Your task to perform on an android device: Clear the cart on bestbuy. Search for "lenovo thinkpad" on bestbuy, select the first entry, and add it to the cart. Image 0: 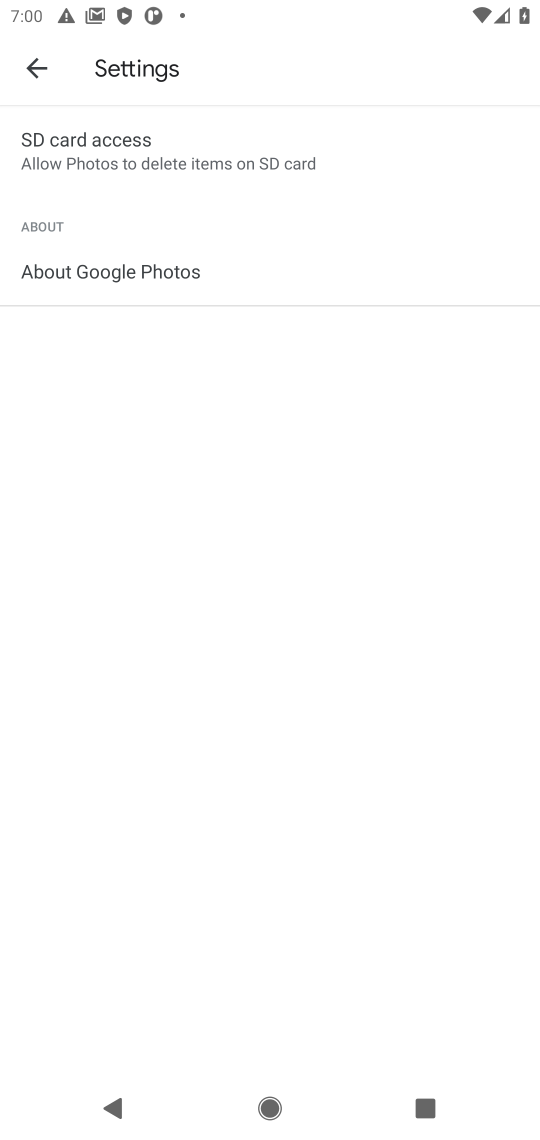
Step 0: press home button
Your task to perform on an android device: Clear the cart on bestbuy. Search for "lenovo thinkpad" on bestbuy, select the first entry, and add it to the cart. Image 1: 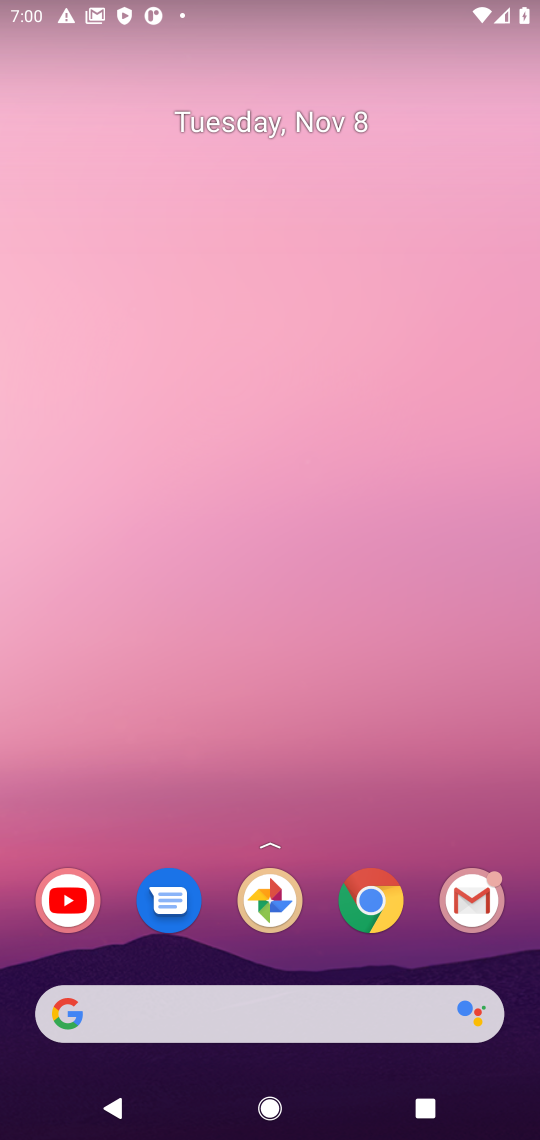
Step 1: click (397, 891)
Your task to perform on an android device: Clear the cart on bestbuy. Search for "lenovo thinkpad" on bestbuy, select the first entry, and add it to the cart. Image 2: 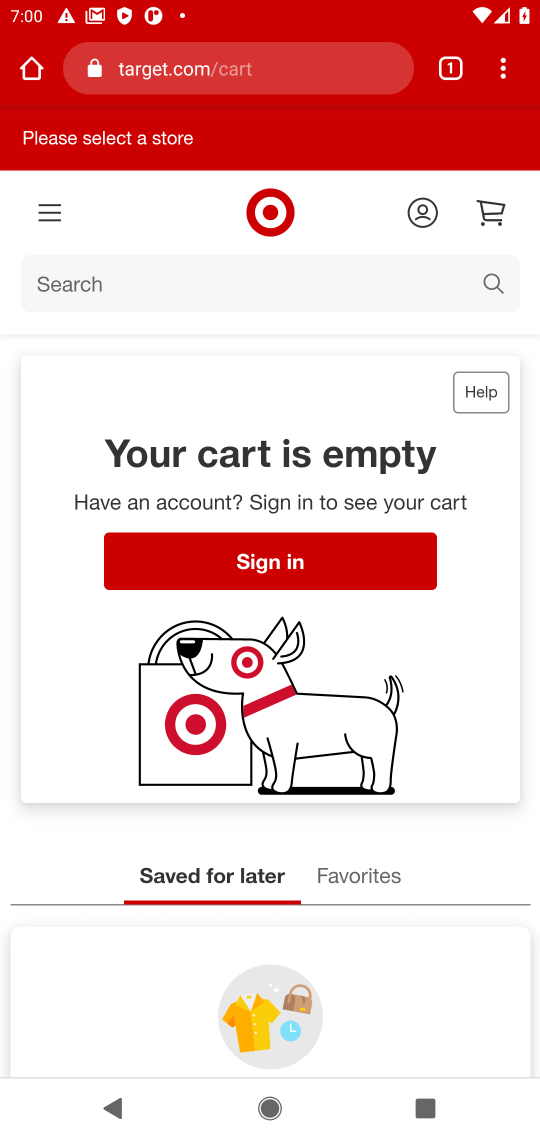
Step 2: click (212, 65)
Your task to perform on an android device: Clear the cart on bestbuy. Search for "lenovo thinkpad" on bestbuy, select the first entry, and add it to the cart. Image 3: 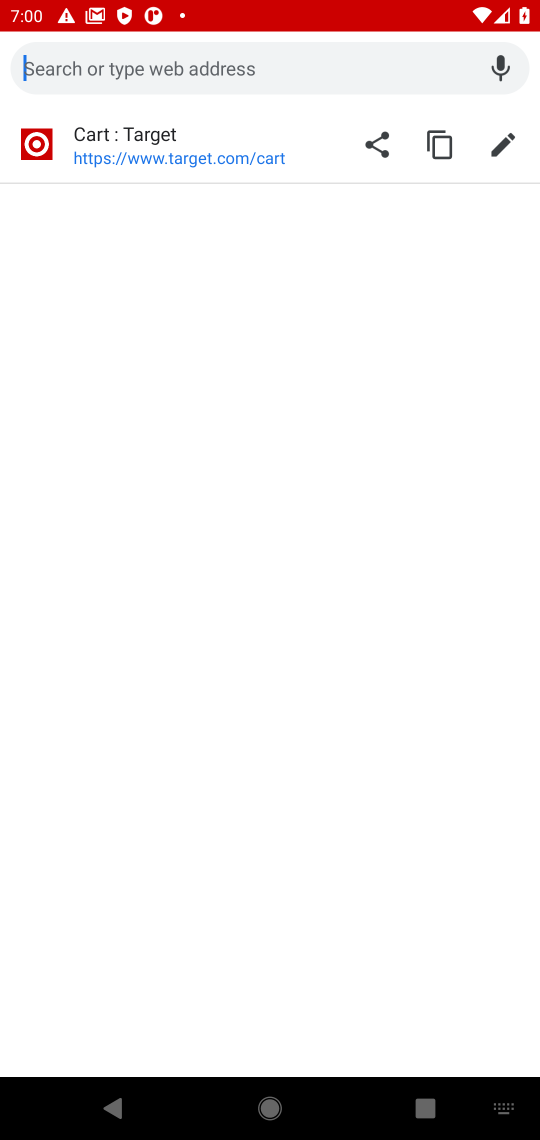
Step 3: type "bestbuy"
Your task to perform on an android device: Clear the cart on bestbuy. Search for "lenovo thinkpad" on bestbuy, select the first entry, and add it to the cart. Image 4: 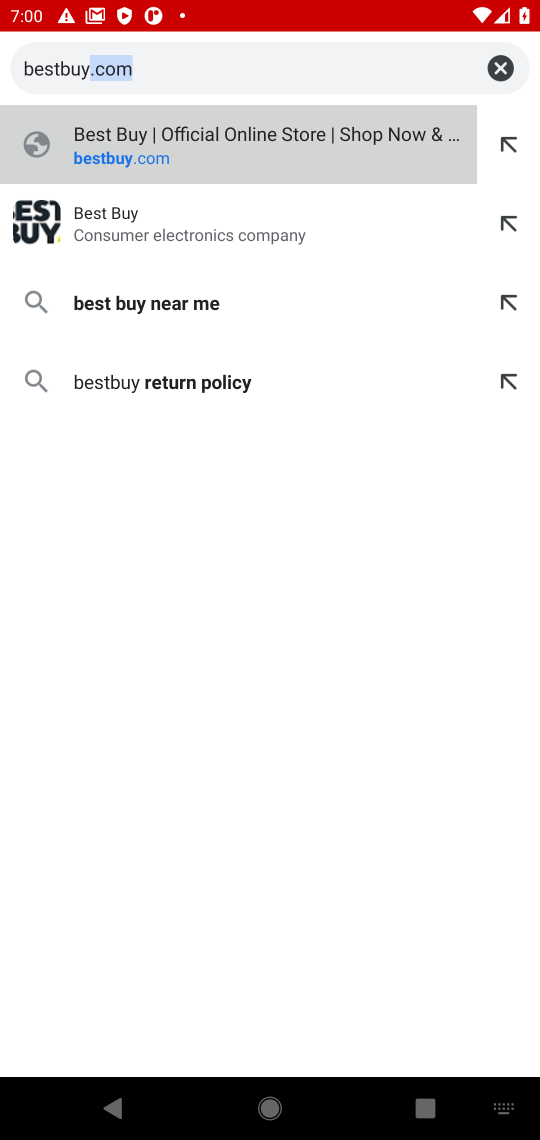
Step 4: type ""
Your task to perform on an android device: Clear the cart on bestbuy. Search for "lenovo thinkpad" on bestbuy, select the first entry, and add it to the cart. Image 5: 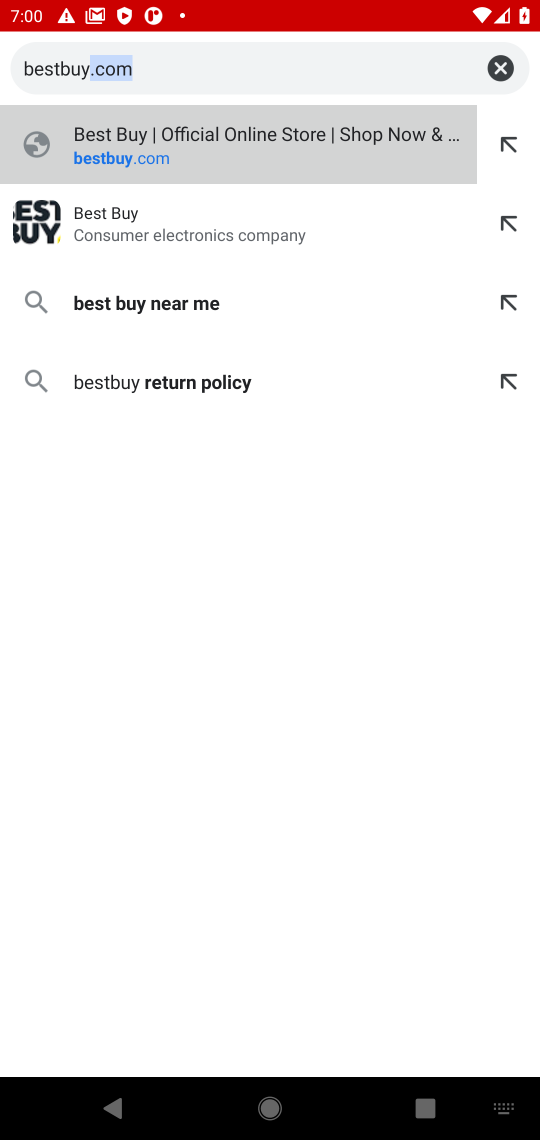
Step 5: click (160, 220)
Your task to perform on an android device: Clear the cart on bestbuy. Search for "lenovo thinkpad" on bestbuy, select the first entry, and add it to the cart. Image 6: 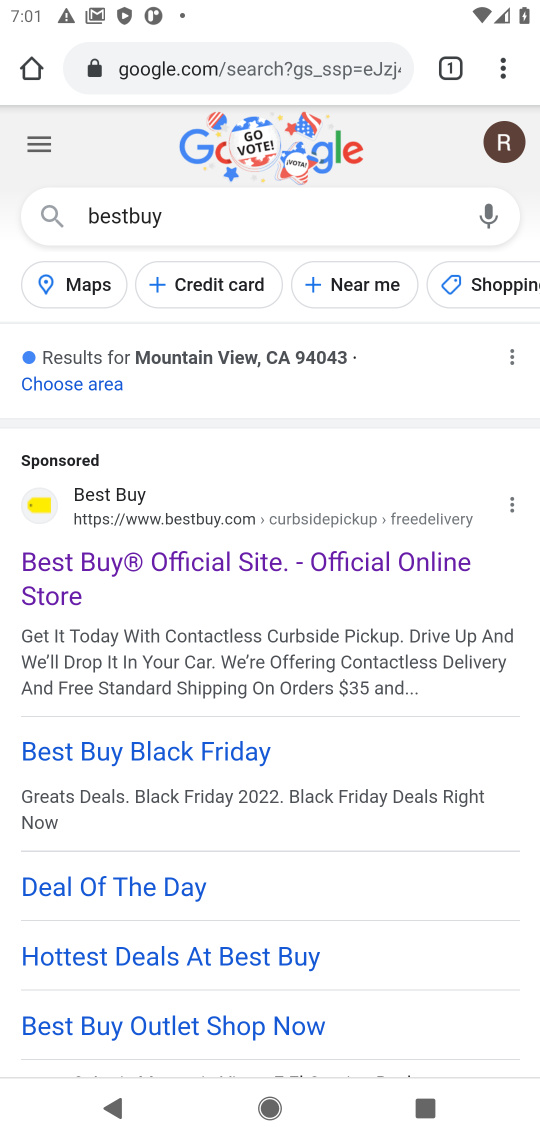
Step 6: click (97, 555)
Your task to perform on an android device: Clear the cart on bestbuy. Search for "lenovo thinkpad" on bestbuy, select the first entry, and add it to the cart. Image 7: 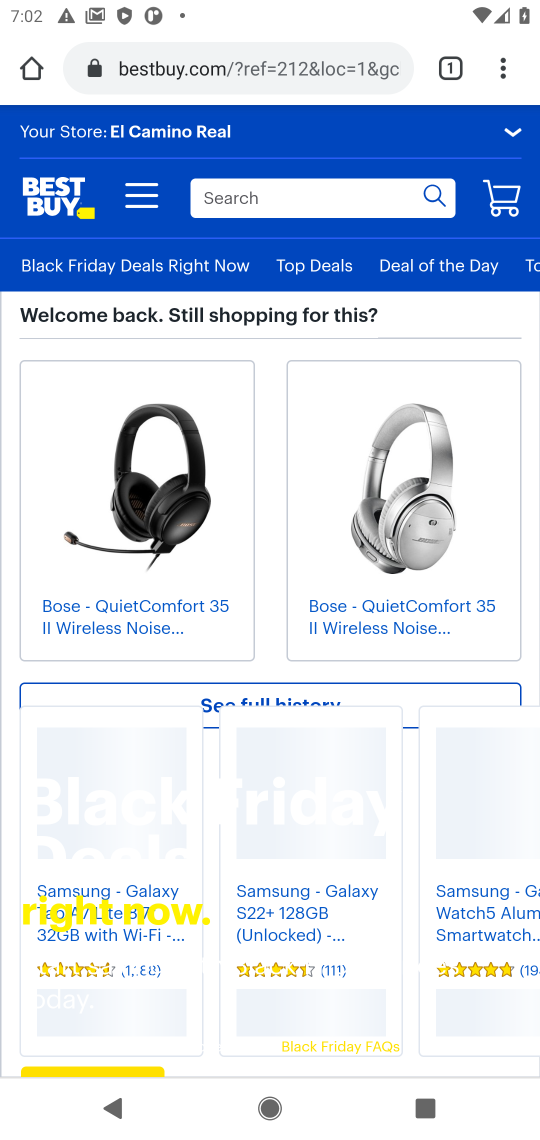
Step 7: click (256, 198)
Your task to perform on an android device: Clear the cart on bestbuy. Search for "lenovo thinkpad" on bestbuy, select the first entry, and add it to the cart. Image 8: 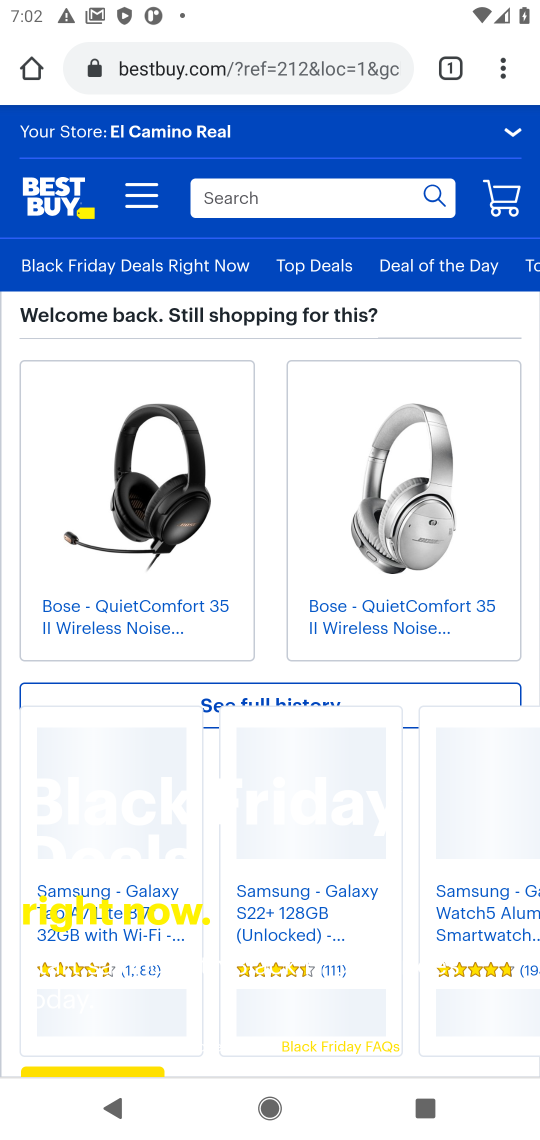
Step 8: click (298, 193)
Your task to perform on an android device: Clear the cart on bestbuy. Search for "lenovo thinkpad" on bestbuy, select the first entry, and add it to the cart. Image 9: 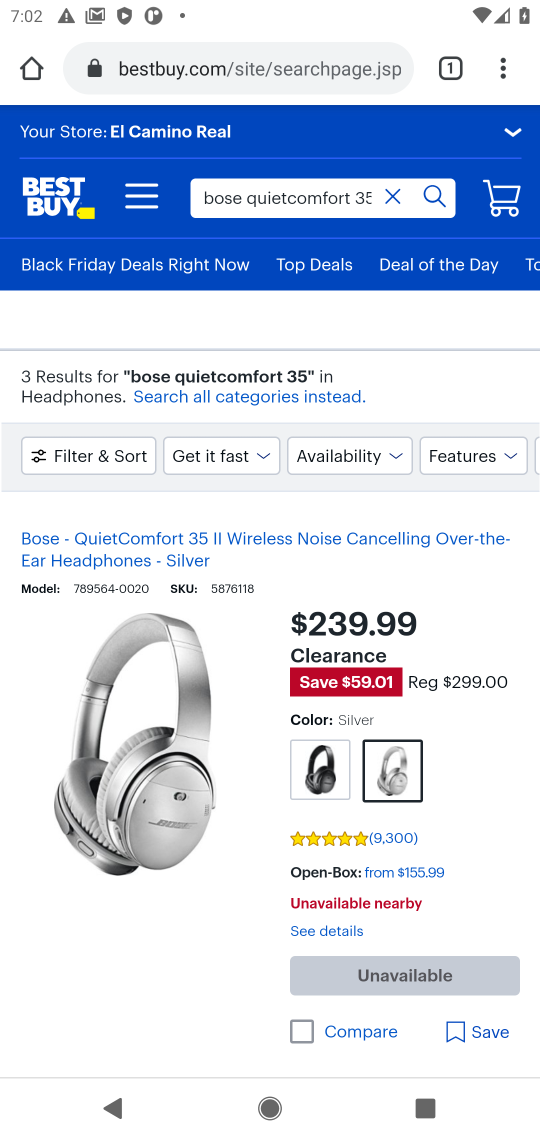
Step 9: type "lenovo thinkpad"
Your task to perform on an android device: Clear the cart on bestbuy. Search for "lenovo thinkpad" on bestbuy, select the first entry, and add it to the cart. Image 10: 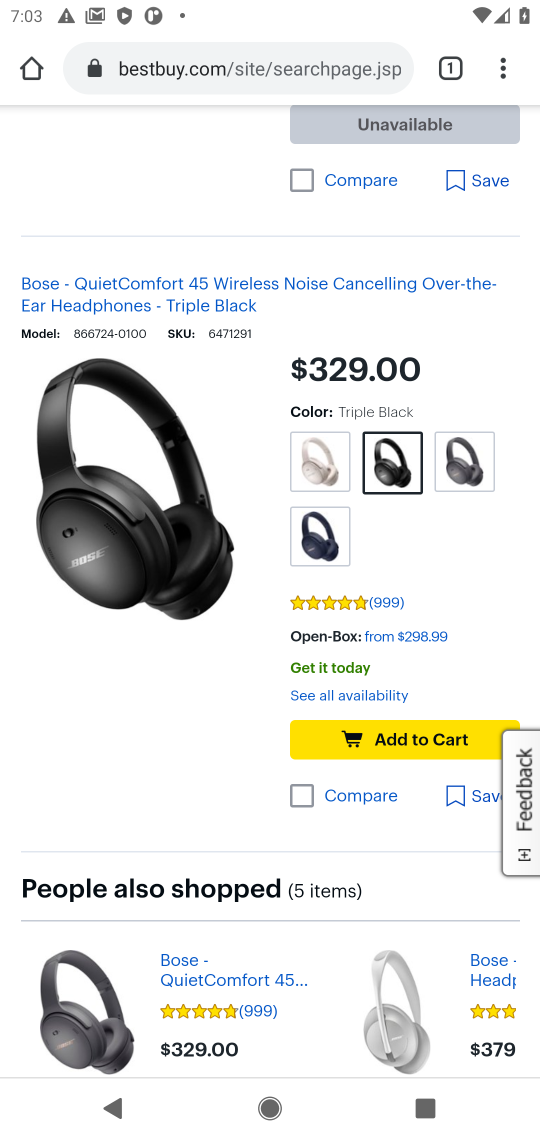
Step 10: drag from (201, 235) to (231, 1061)
Your task to perform on an android device: Clear the cart on bestbuy. Search for "lenovo thinkpad" on bestbuy, select the first entry, and add it to the cart. Image 11: 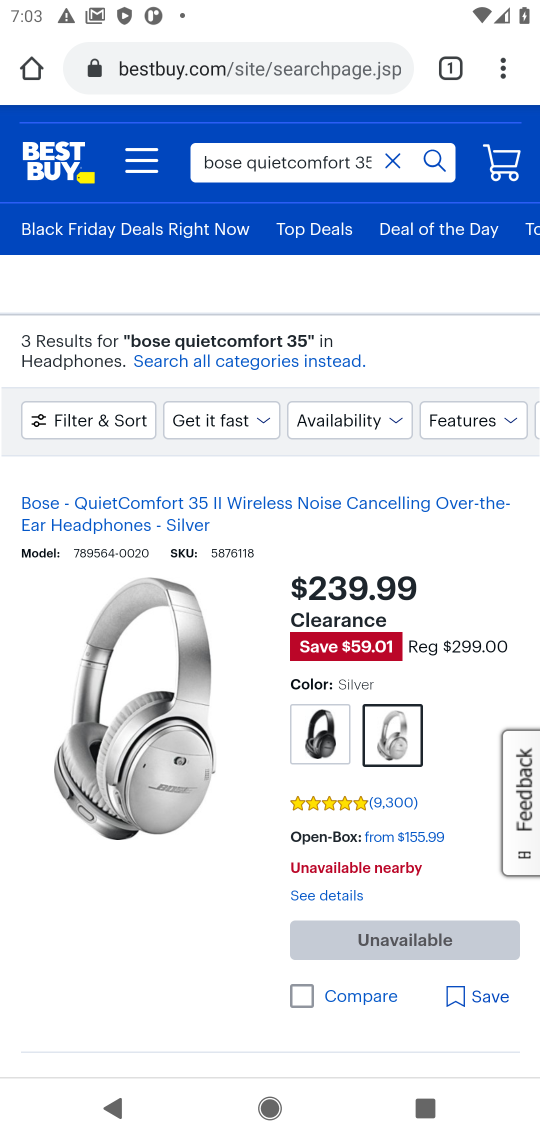
Step 11: click (389, 158)
Your task to perform on an android device: Clear the cart on bestbuy. Search for "lenovo thinkpad" on bestbuy, select the first entry, and add it to the cart. Image 12: 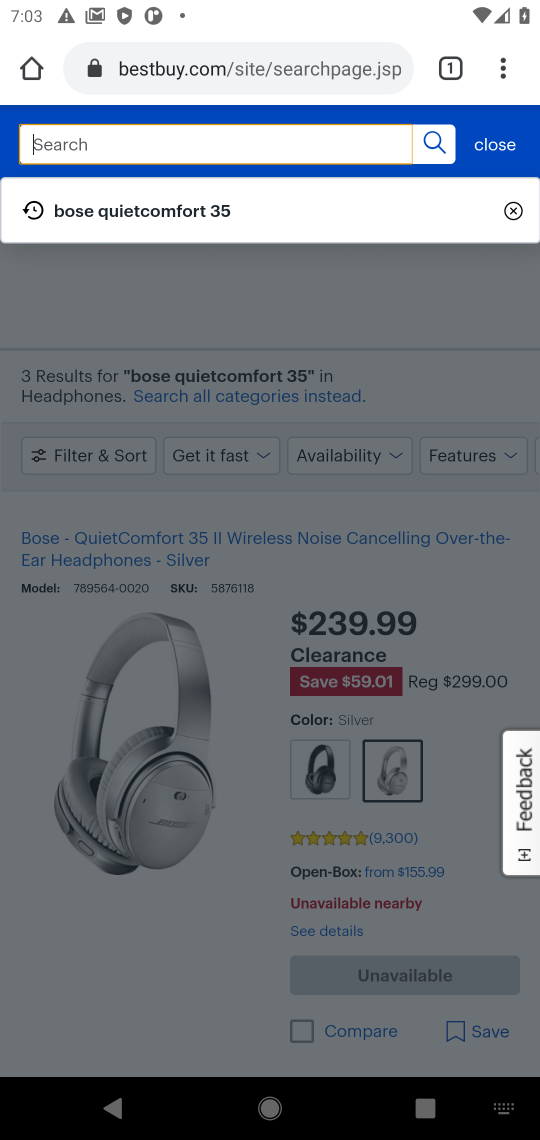
Step 12: type "lenovo thinkpadd"
Your task to perform on an android device: Clear the cart on bestbuy. Search for "lenovo thinkpad" on bestbuy, select the first entry, and add it to the cart. Image 13: 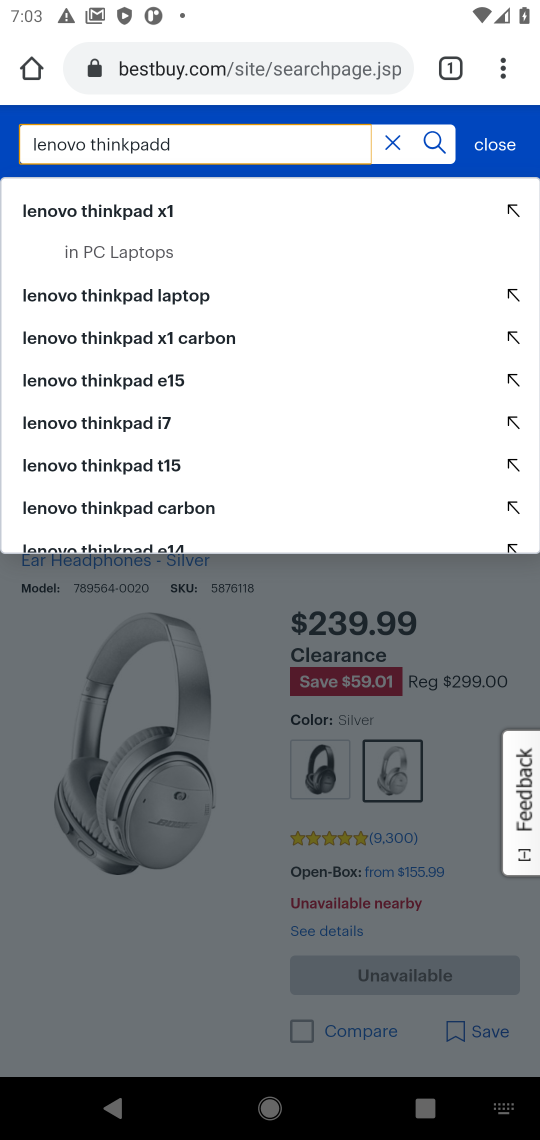
Step 13: click (99, 296)
Your task to perform on an android device: Clear the cart on bestbuy. Search for "lenovo thinkpad" on bestbuy, select the first entry, and add it to the cart. Image 14: 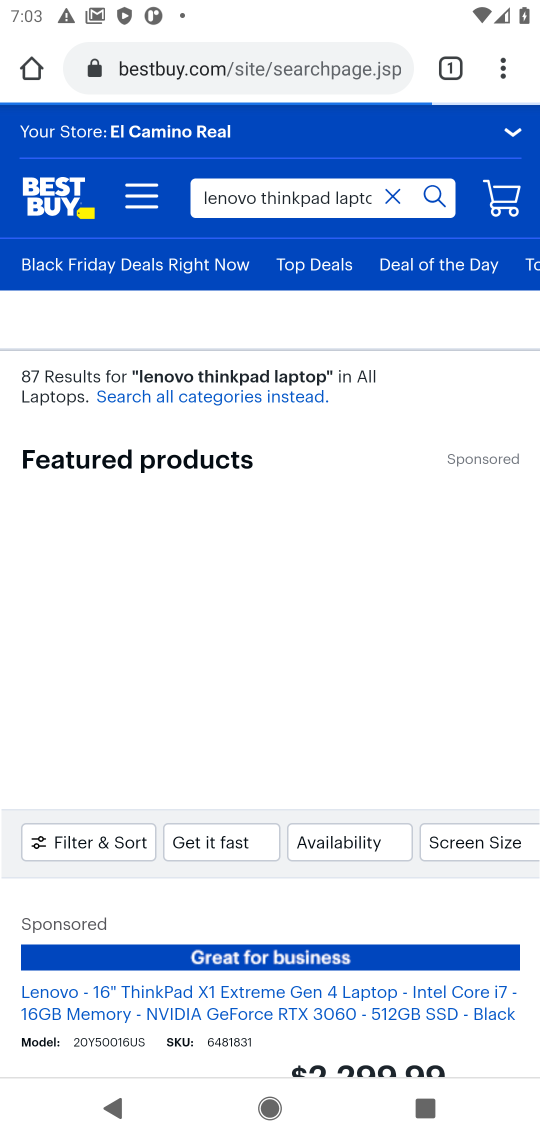
Step 14: drag from (227, 982) to (340, 303)
Your task to perform on an android device: Clear the cart on bestbuy. Search for "lenovo thinkpad" on bestbuy, select the first entry, and add it to the cart. Image 15: 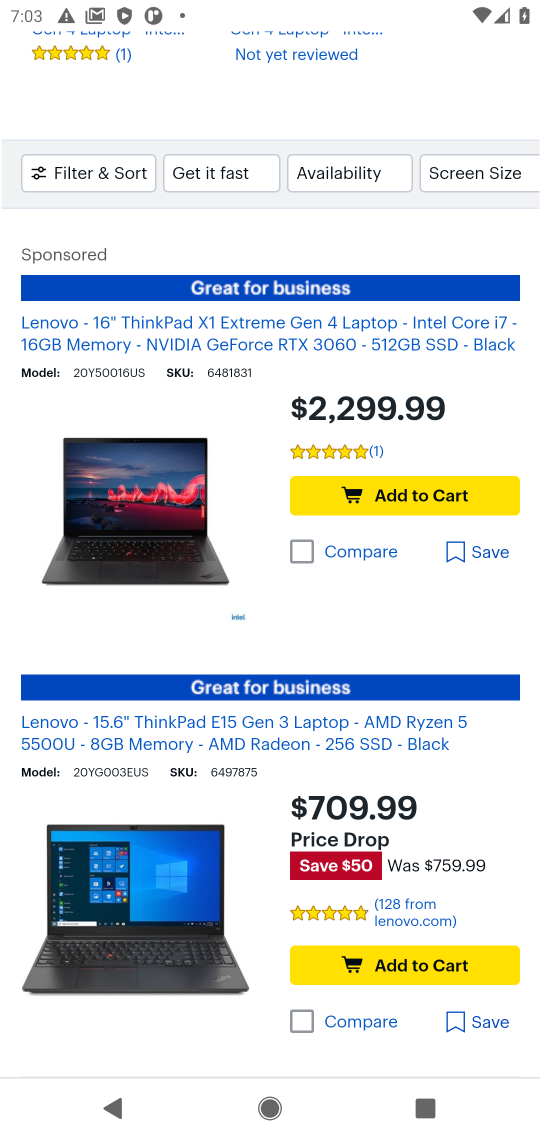
Step 15: click (181, 328)
Your task to perform on an android device: Clear the cart on bestbuy. Search for "lenovo thinkpad" on bestbuy, select the first entry, and add it to the cart. Image 16: 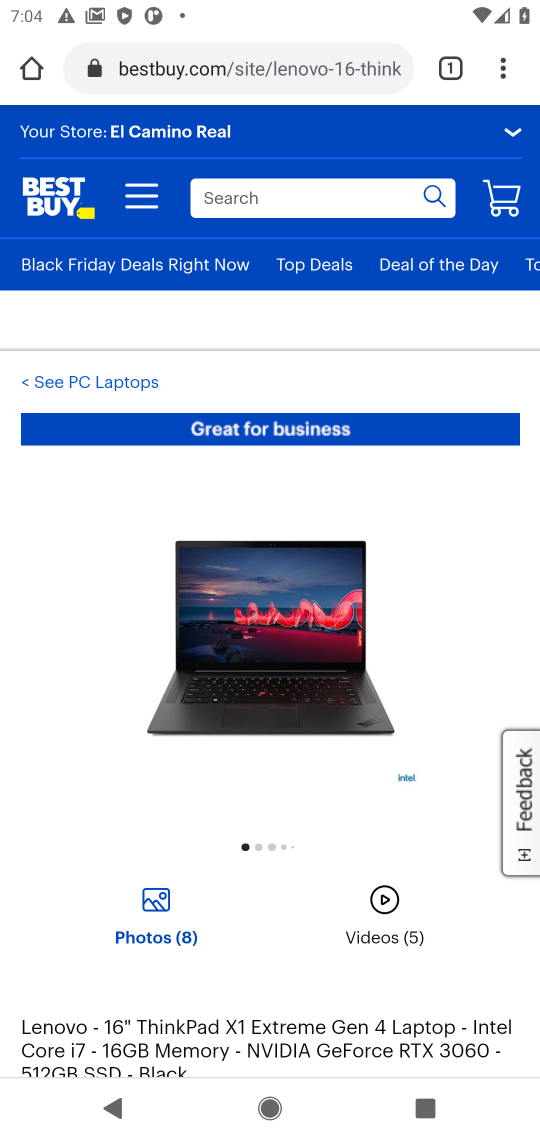
Step 16: drag from (194, 820) to (171, 327)
Your task to perform on an android device: Clear the cart on bestbuy. Search for "lenovo thinkpad" on bestbuy, select the first entry, and add it to the cart. Image 17: 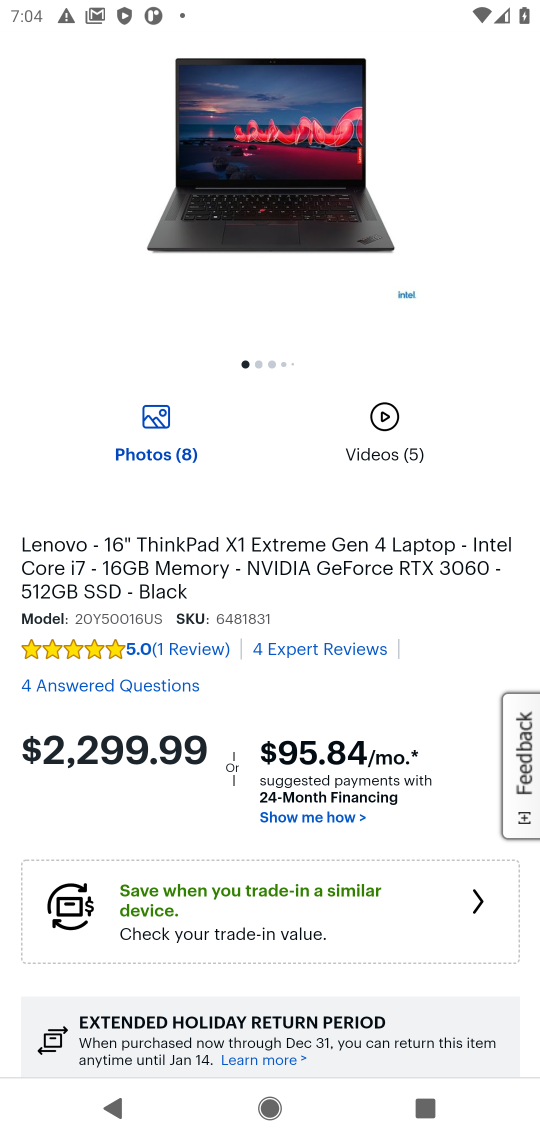
Step 17: drag from (169, 918) to (214, 354)
Your task to perform on an android device: Clear the cart on bestbuy. Search for "lenovo thinkpad" on bestbuy, select the first entry, and add it to the cart. Image 18: 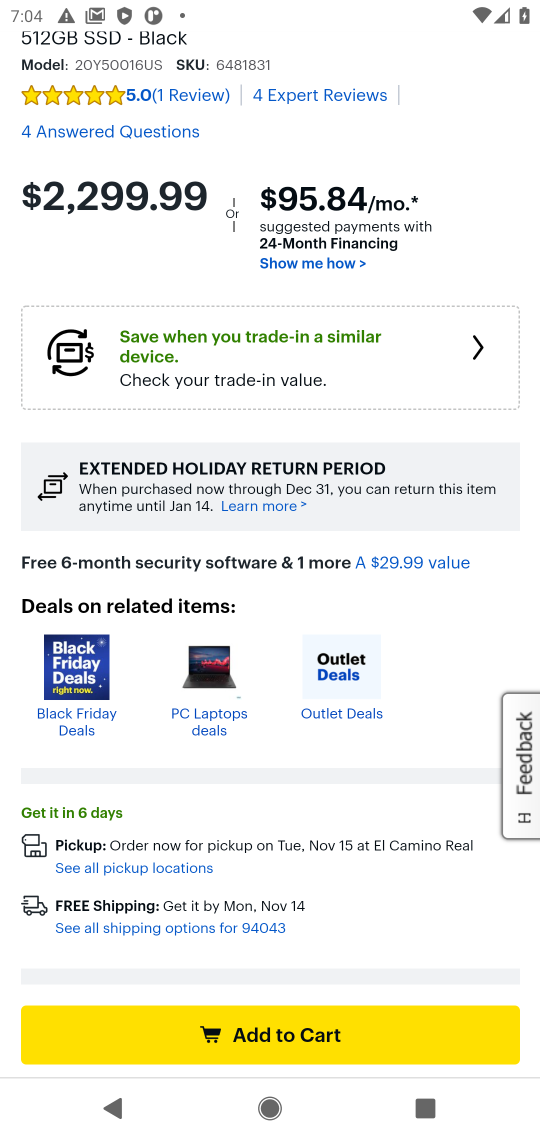
Step 18: click (312, 1045)
Your task to perform on an android device: Clear the cart on bestbuy. Search for "lenovo thinkpad" on bestbuy, select the first entry, and add it to the cart. Image 19: 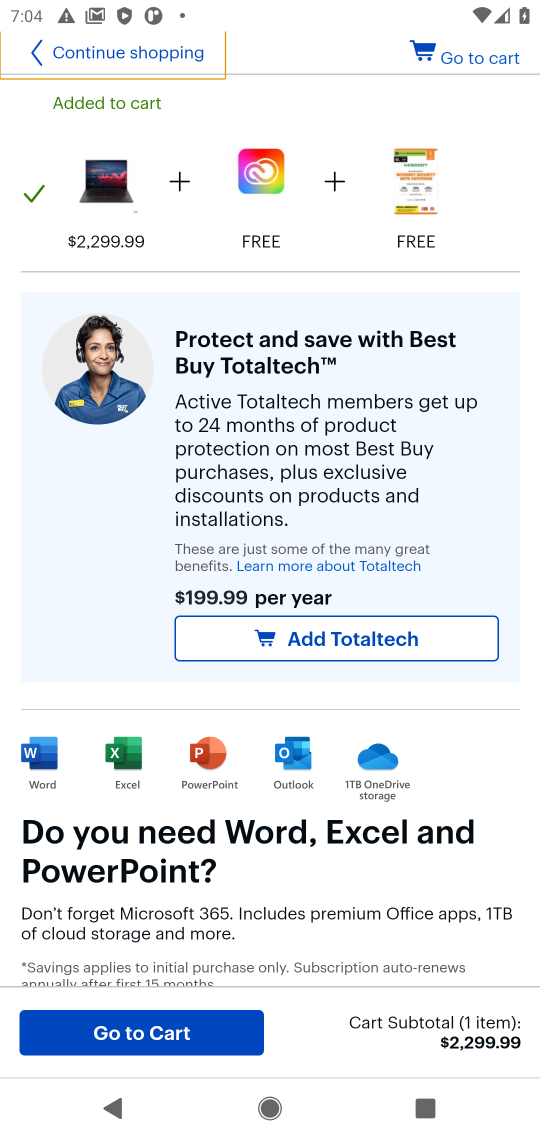
Step 19: click (157, 1037)
Your task to perform on an android device: Clear the cart on bestbuy. Search for "lenovo thinkpad" on bestbuy, select the first entry, and add it to the cart. Image 20: 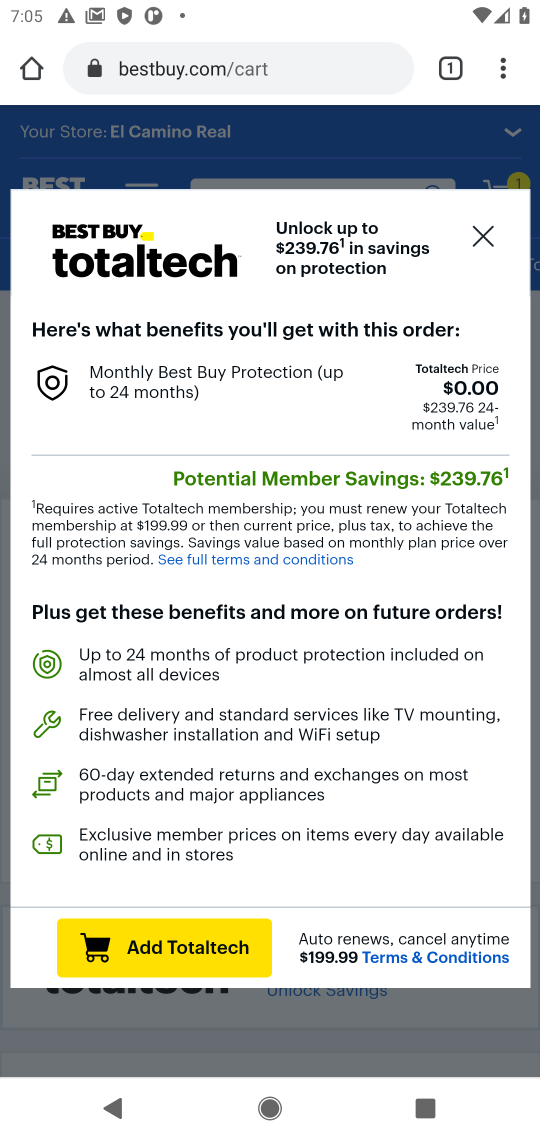
Step 20: click (483, 237)
Your task to perform on an android device: Clear the cart on bestbuy. Search for "lenovo thinkpad" on bestbuy, select the first entry, and add it to the cart. Image 21: 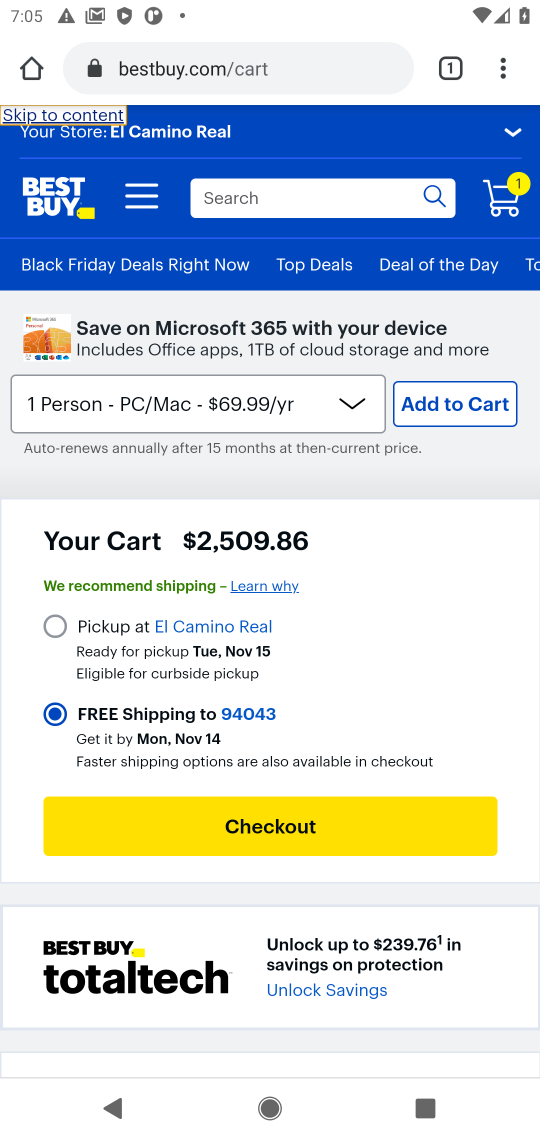
Step 21: click (510, 197)
Your task to perform on an android device: Clear the cart on bestbuy. Search for "lenovo thinkpad" on bestbuy, select the first entry, and add it to the cart. Image 22: 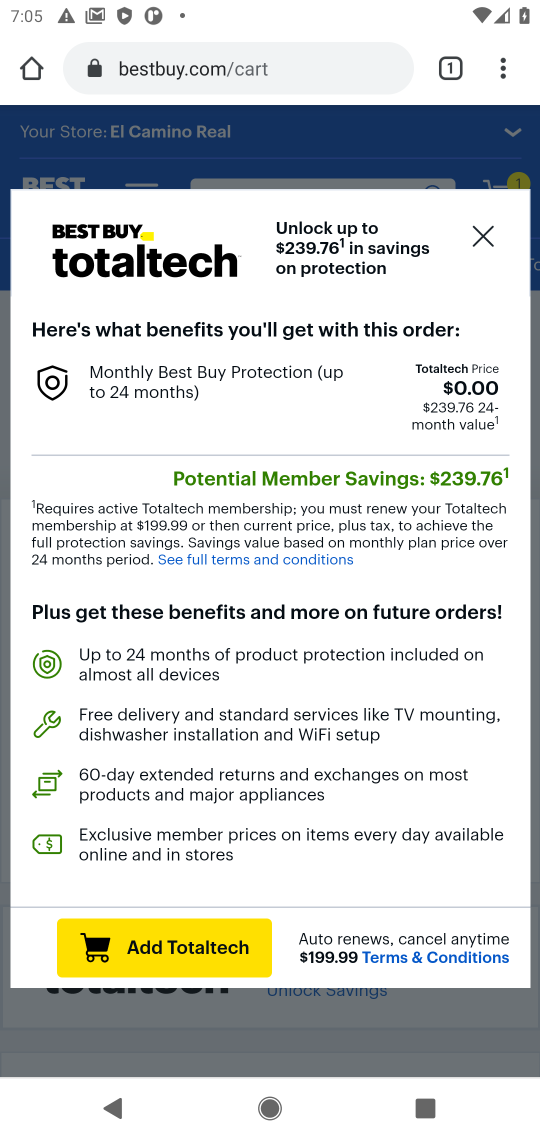
Step 22: click (485, 232)
Your task to perform on an android device: Clear the cart on bestbuy. Search for "lenovo thinkpad" on bestbuy, select the first entry, and add it to the cart. Image 23: 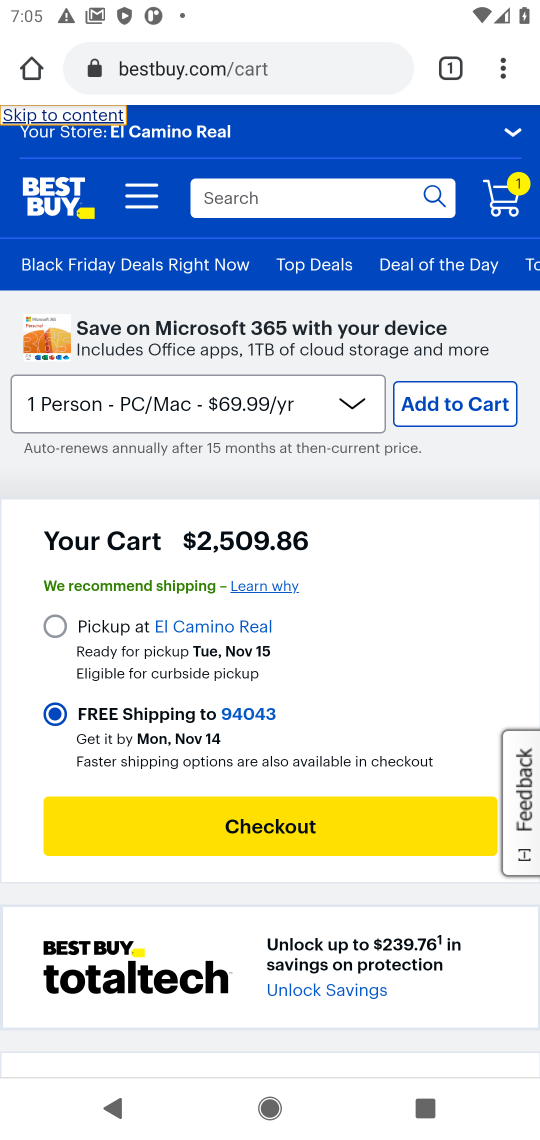
Step 23: click (503, 195)
Your task to perform on an android device: Clear the cart on bestbuy. Search for "lenovo thinkpad" on bestbuy, select the first entry, and add it to the cart. Image 24: 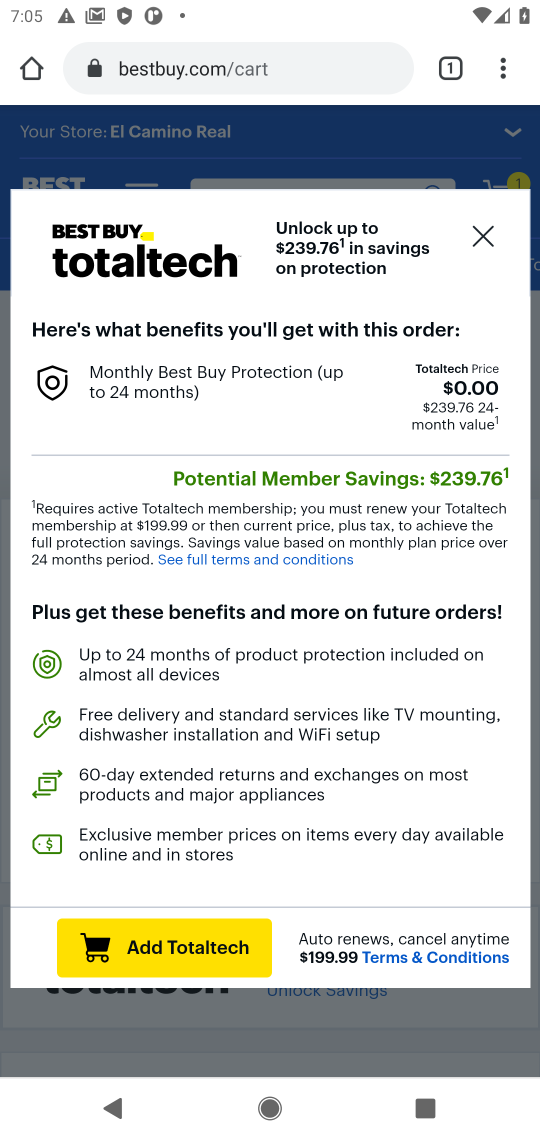
Step 24: click (484, 233)
Your task to perform on an android device: Clear the cart on bestbuy. Search for "lenovo thinkpad" on bestbuy, select the first entry, and add it to the cart. Image 25: 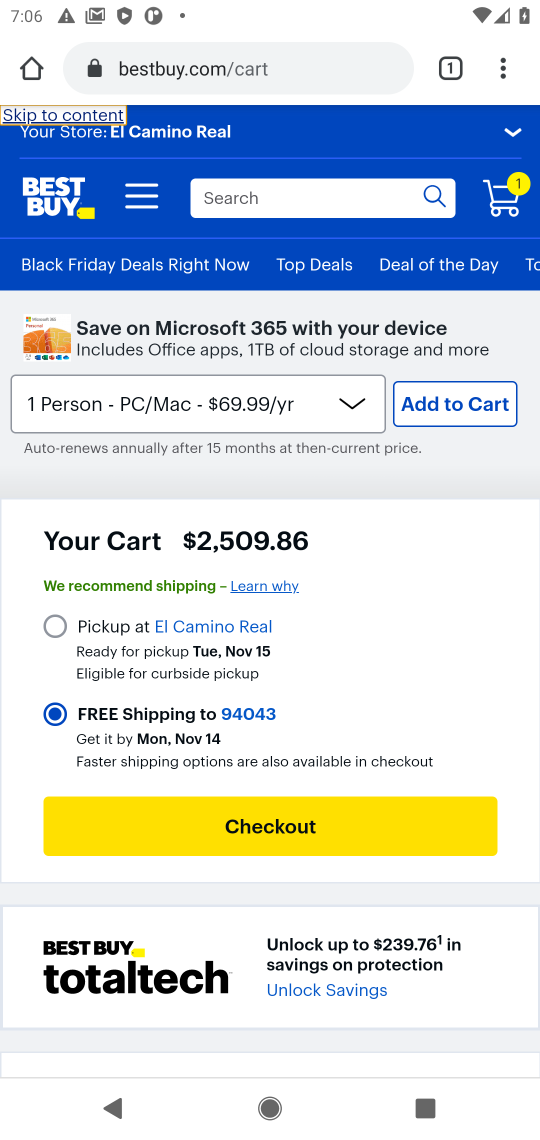
Step 25: task complete